Your task to perform on an android device: Go to sound settings Image 0: 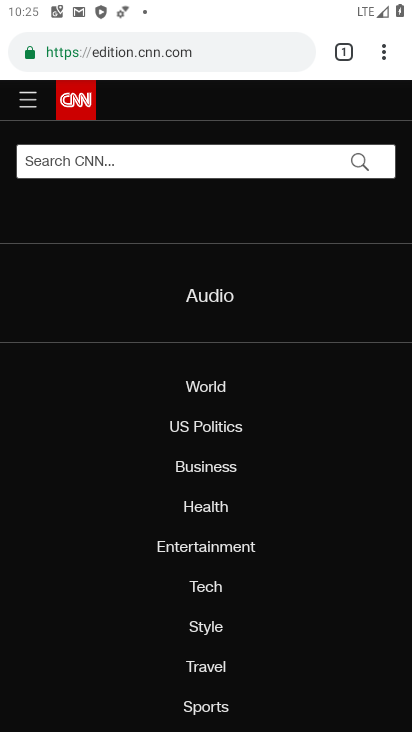
Step 0: click (380, 58)
Your task to perform on an android device: Go to sound settings Image 1: 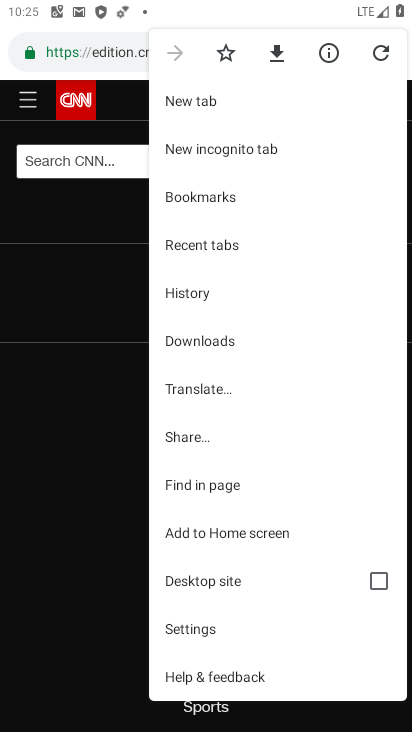
Step 1: click (217, 630)
Your task to perform on an android device: Go to sound settings Image 2: 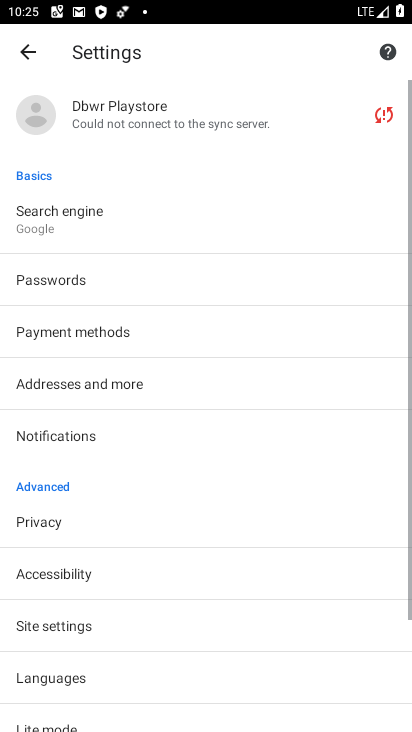
Step 2: drag from (232, 681) to (228, 242)
Your task to perform on an android device: Go to sound settings Image 3: 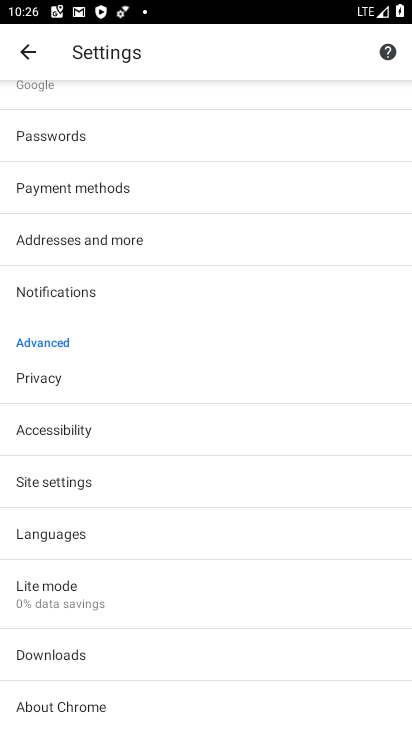
Step 3: press home button
Your task to perform on an android device: Go to sound settings Image 4: 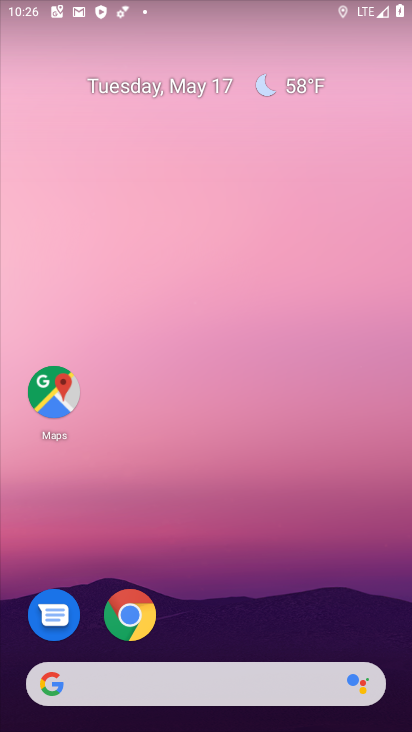
Step 4: drag from (221, 600) to (279, 99)
Your task to perform on an android device: Go to sound settings Image 5: 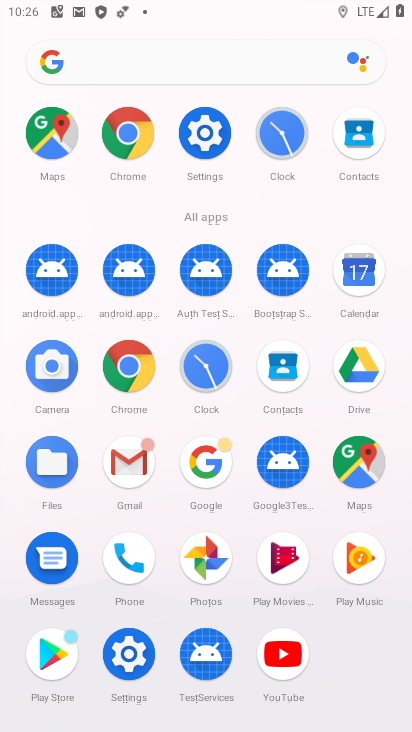
Step 5: click (224, 131)
Your task to perform on an android device: Go to sound settings Image 6: 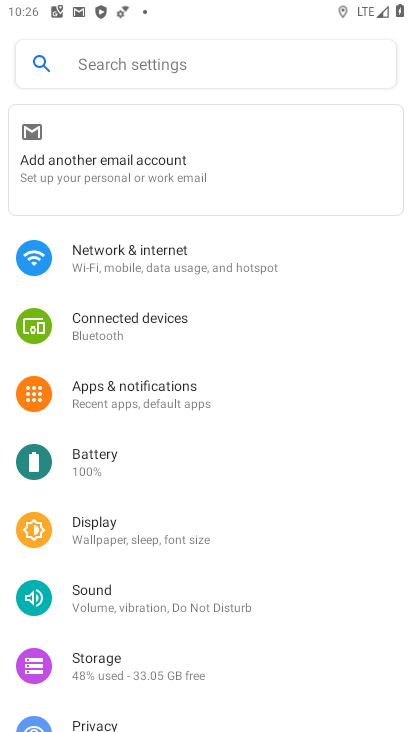
Step 6: drag from (205, 533) to (266, 275)
Your task to perform on an android device: Go to sound settings Image 7: 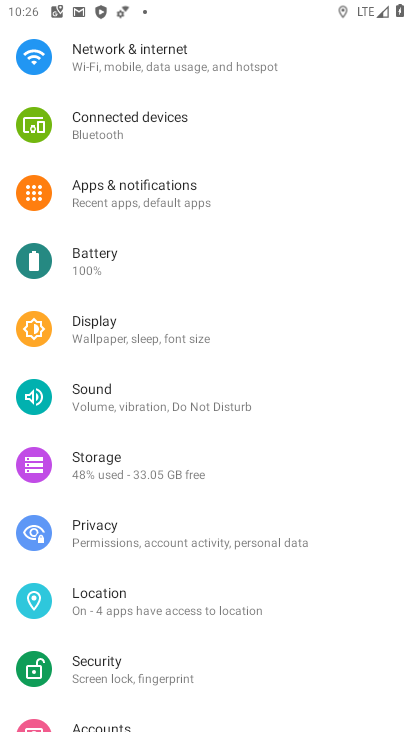
Step 7: click (128, 397)
Your task to perform on an android device: Go to sound settings Image 8: 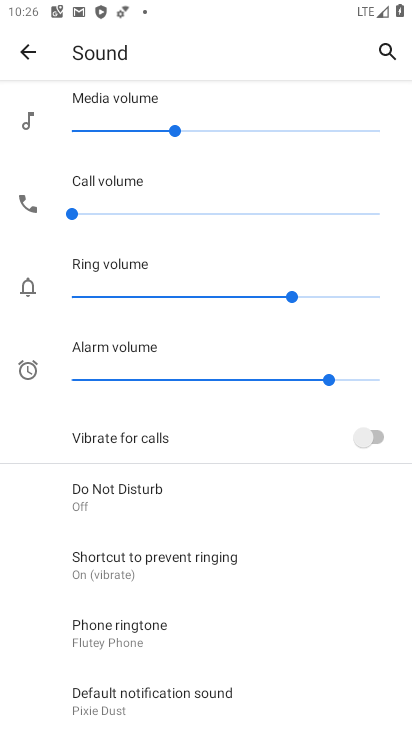
Step 8: task complete